Your task to perform on an android device: Play the new Selena Gomez video on YouTube Image 0: 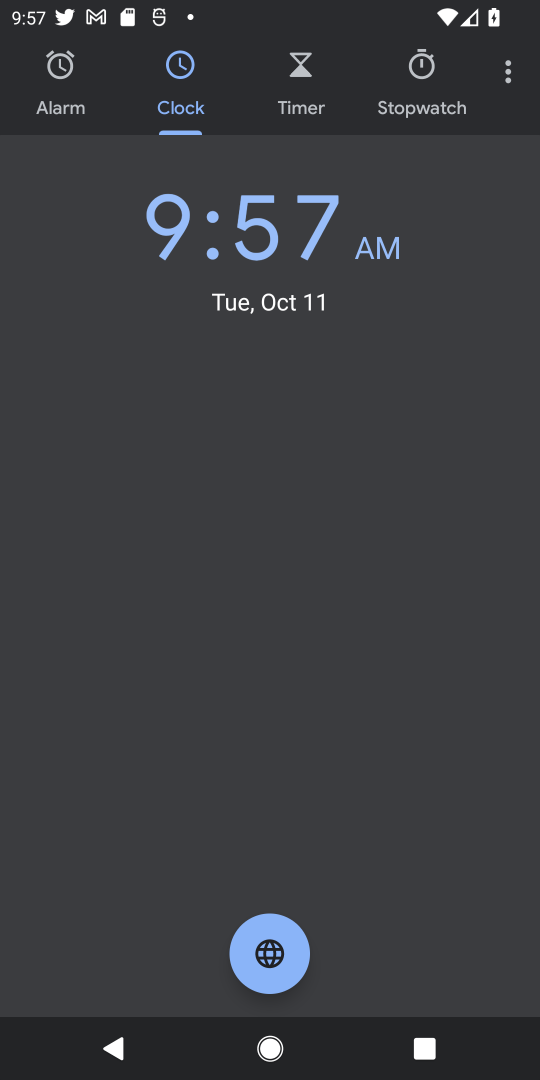
Step 0: press home button
Your task to perform on an android device: Play the new Selena Gomez video on YouTube Image 1: 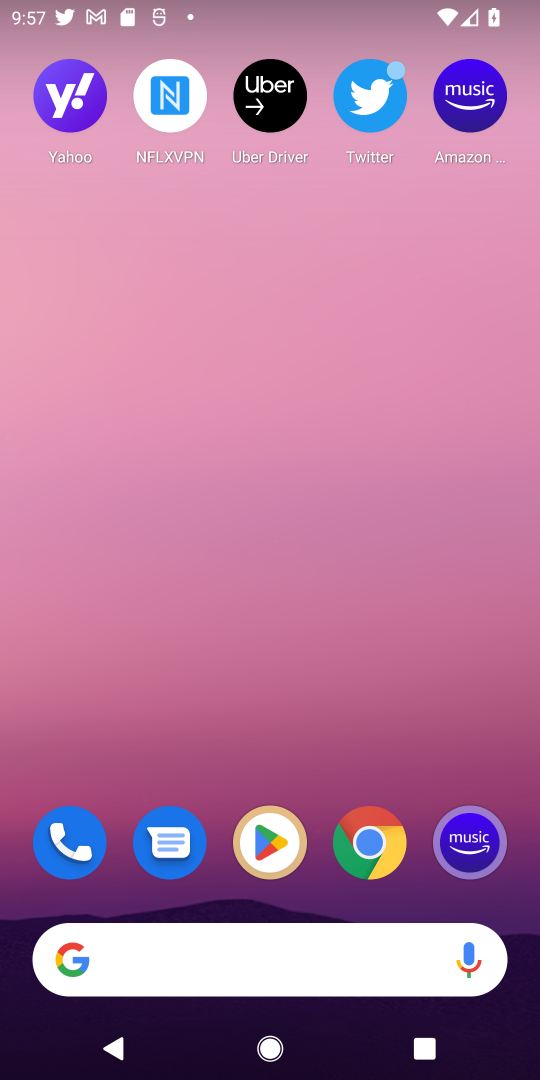
Step 1: click (354, 840)
Your task to perform on an android device: Play the new Selena Gomez video on YouTube Image 2: 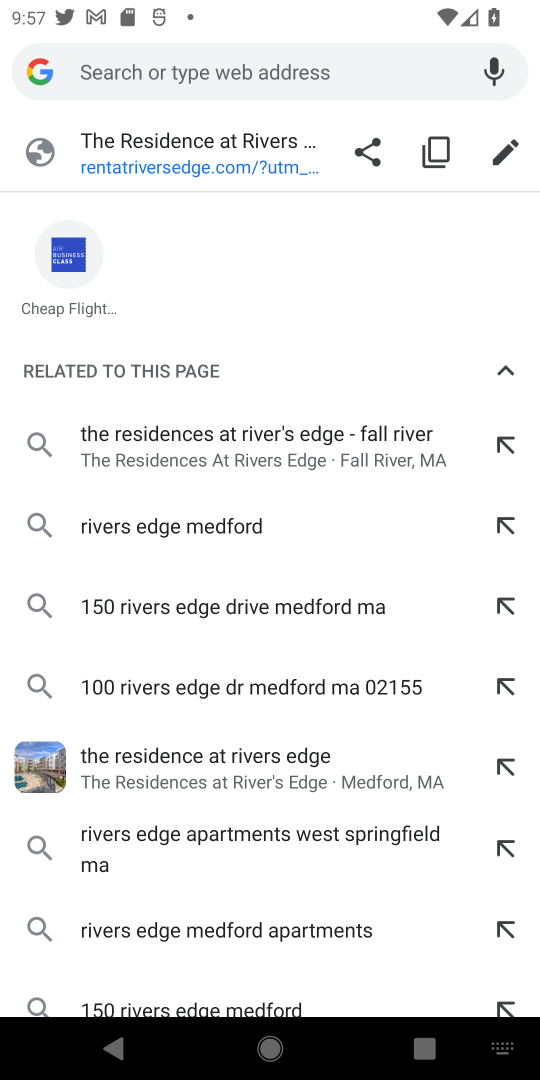
Step 2: press home button
Your task to perform on an android device: Play the new Selena Gomez video on YouTube Image 3: 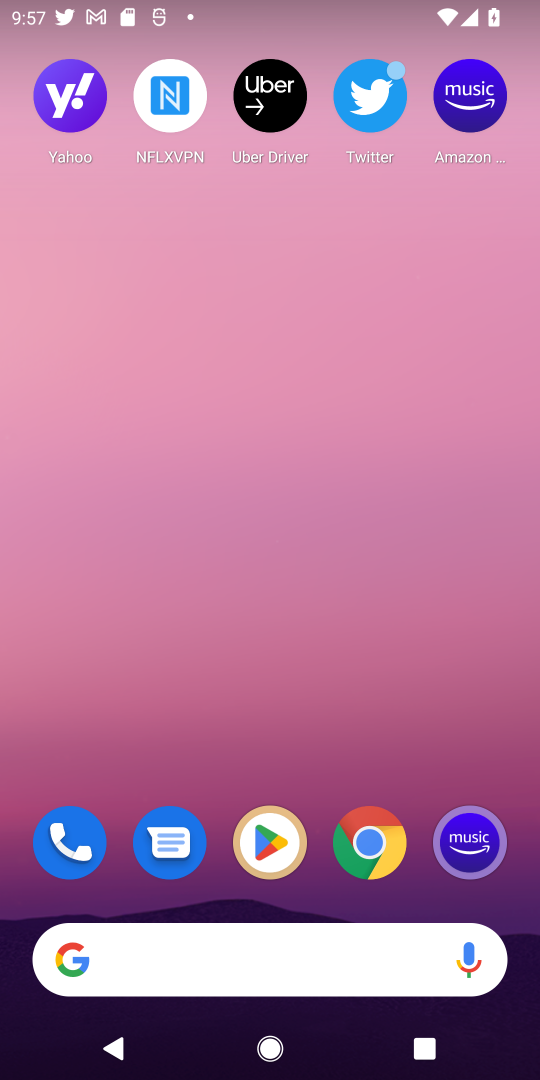
Step 3: drag from (356, 657) to (503, 307)
Your task to perform on an android device: Play the new Selena Gomez video on YouTube Image 4: 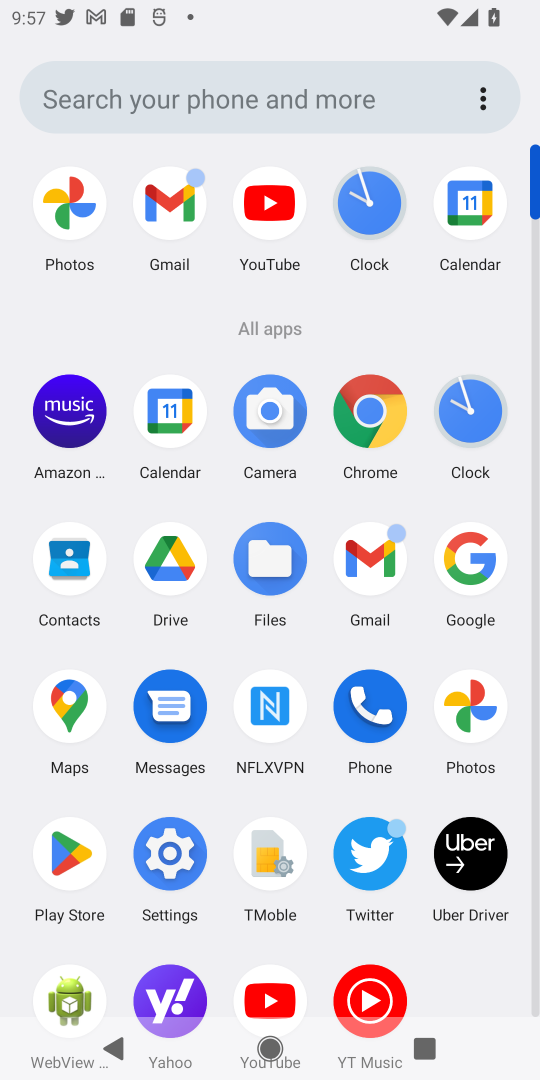
Step 4: click (288, 204)
Your task to perform on an android device: Play the new Selena Gomez video on YouTube Image 5: 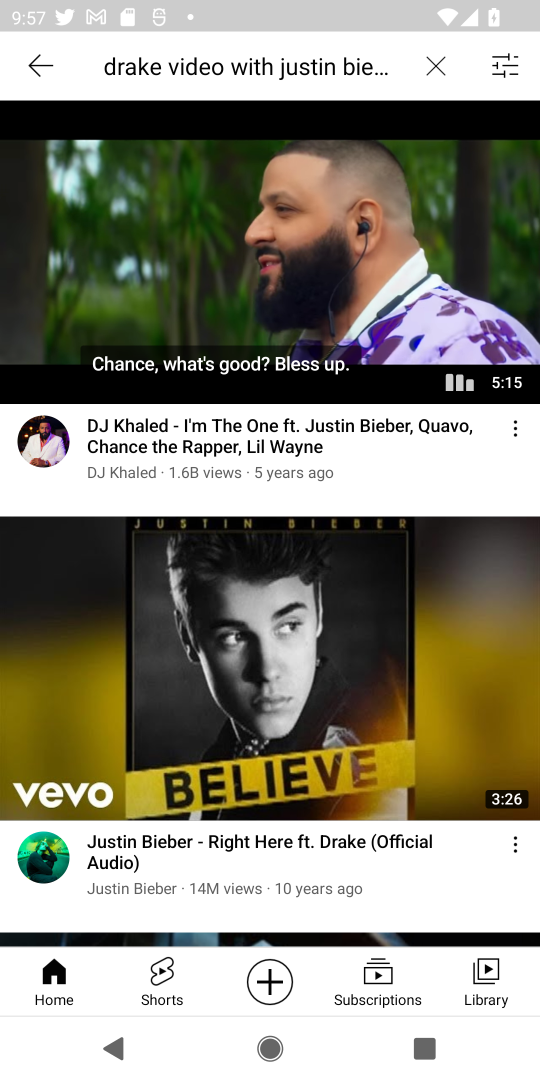
Step 5: click (424, 63)
Your task to perform on an android device: Play the new Selena Gomez video on YouTube Image 6: 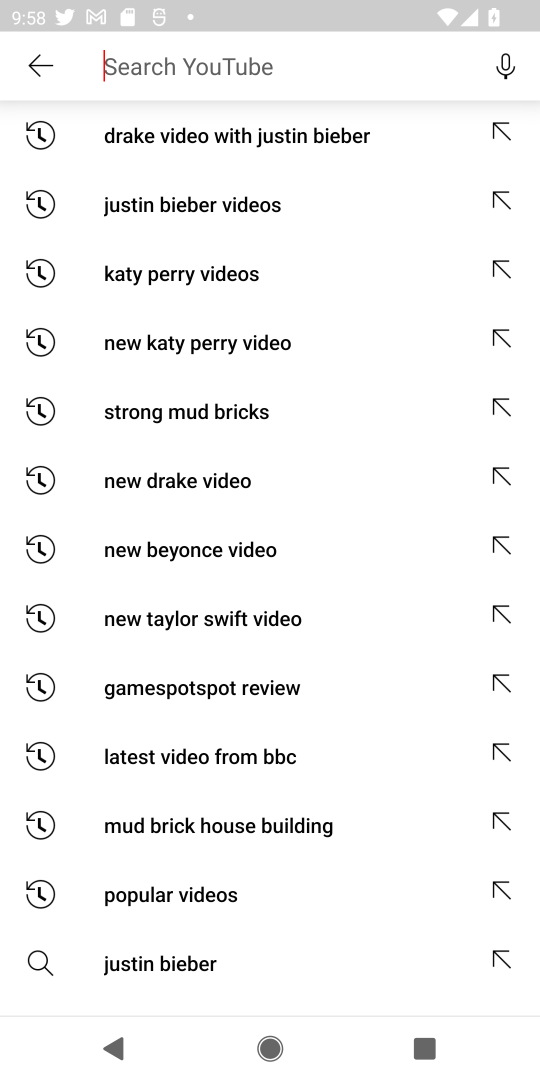
Step 6: type "selena gomez"
Your task to perform on an android device: Play the new Selena Gomez video on YouTube Image 7: 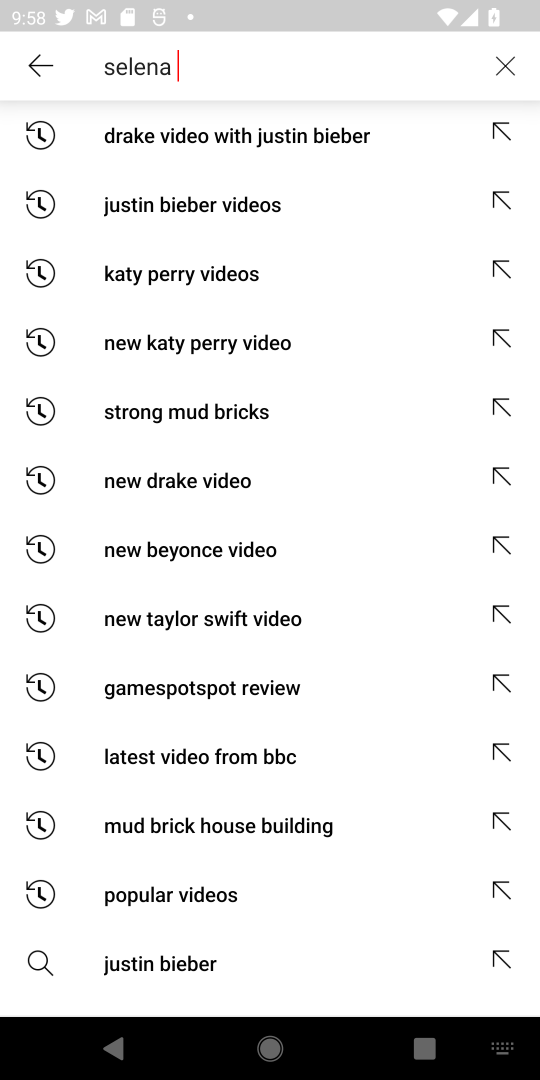
Step 7: type ""
Your task to perform on an android device: Play the new Selena Gomez video on YouTube Image 8: 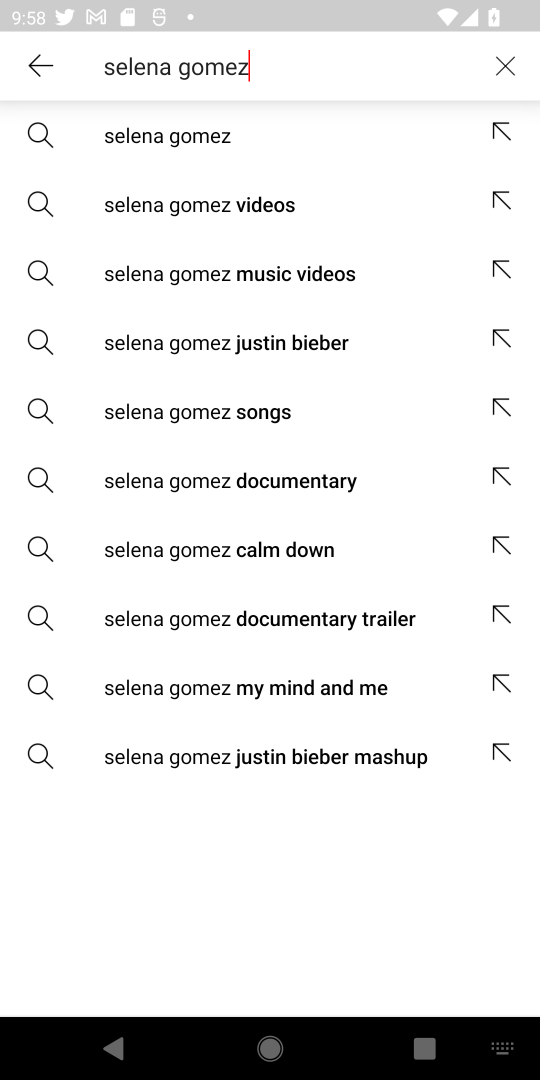
Step 8: click (246, 197)
Your task to perform on an android device: Play the new Selena Gomez video on YouTube Image 9: 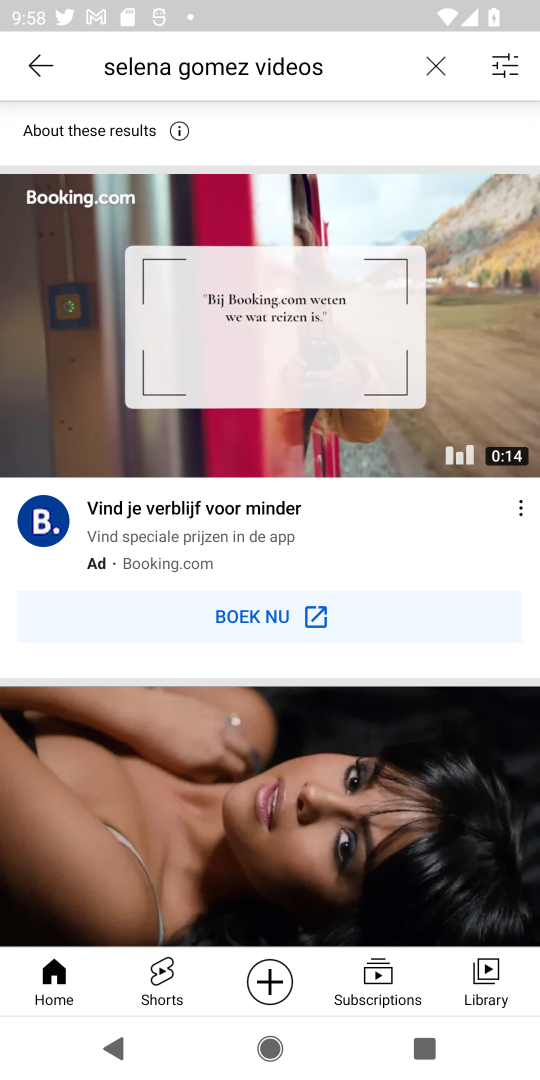
Step 9: task complete